Your task to perform on an android device: toggle location history Image 0: 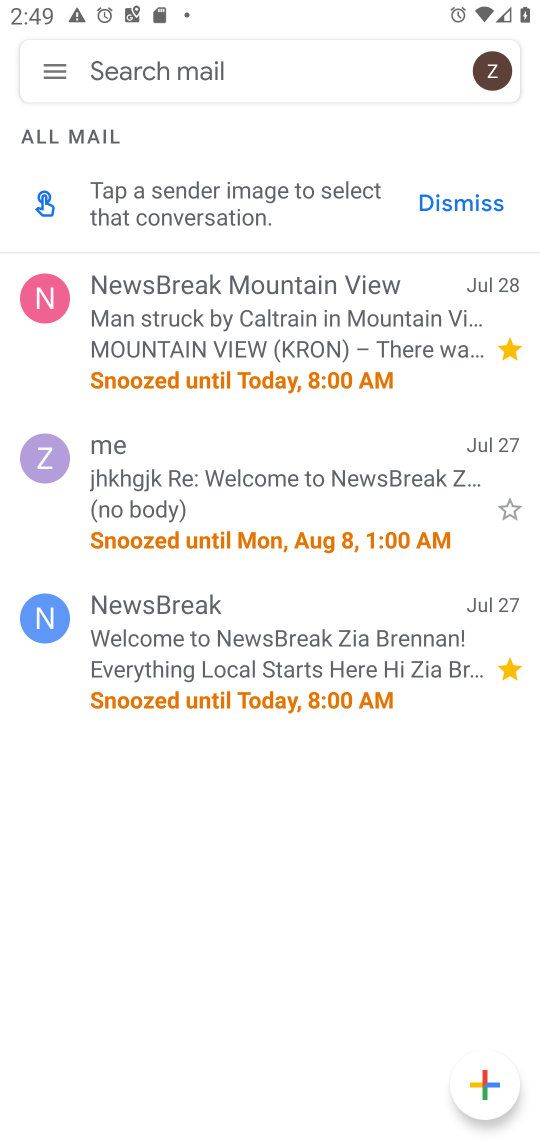
Step 0: press home button
Your task to perform on an android device: toggle location history Image 1: 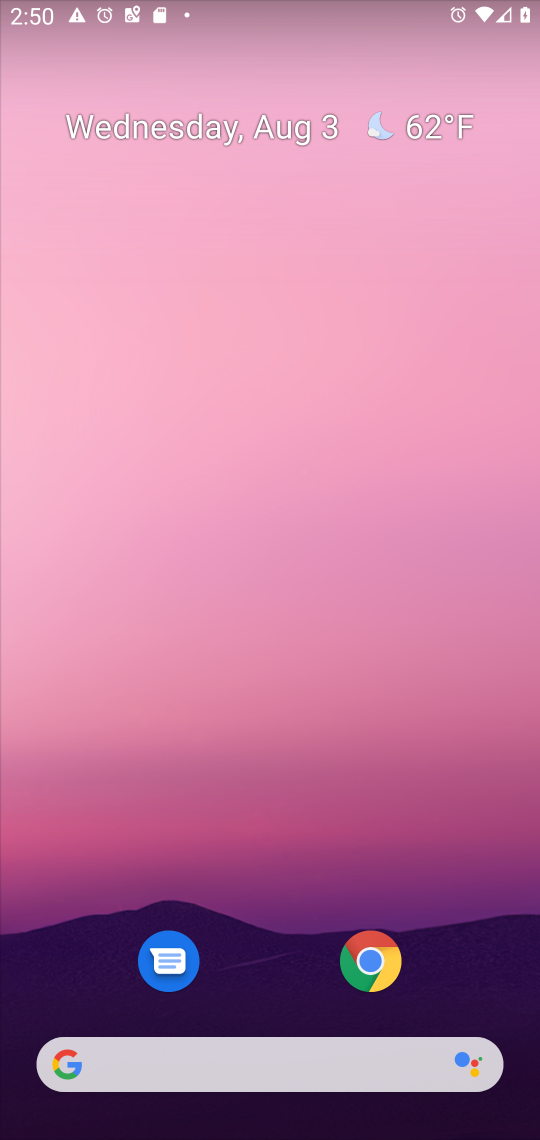
Step 1: drag from (284, 800) to (358, 63)
Your task to perform on an android device: toggle location history Image 2: 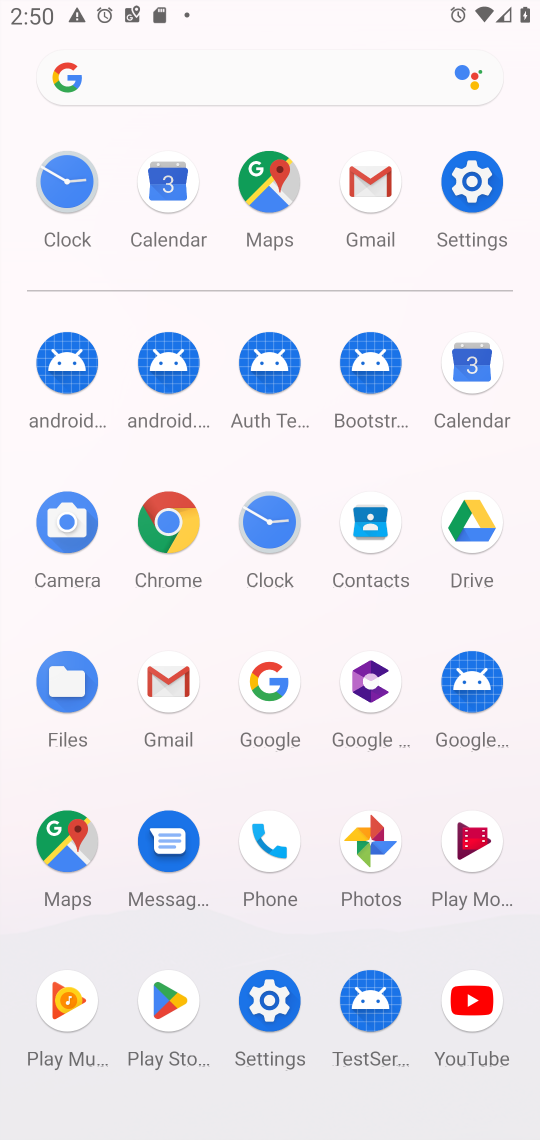
Step 2: click (268, 182)
Your task to perform on an android device: toggle location history Image 3: 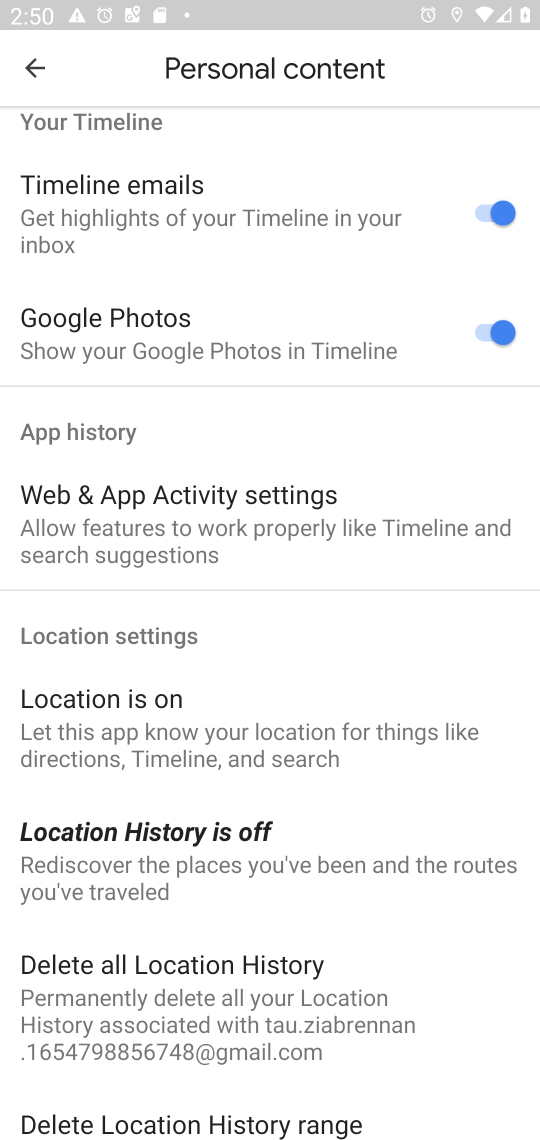
Step 3: click (123, 845)
Your task to perform on an android device: toggle location history Image 4: 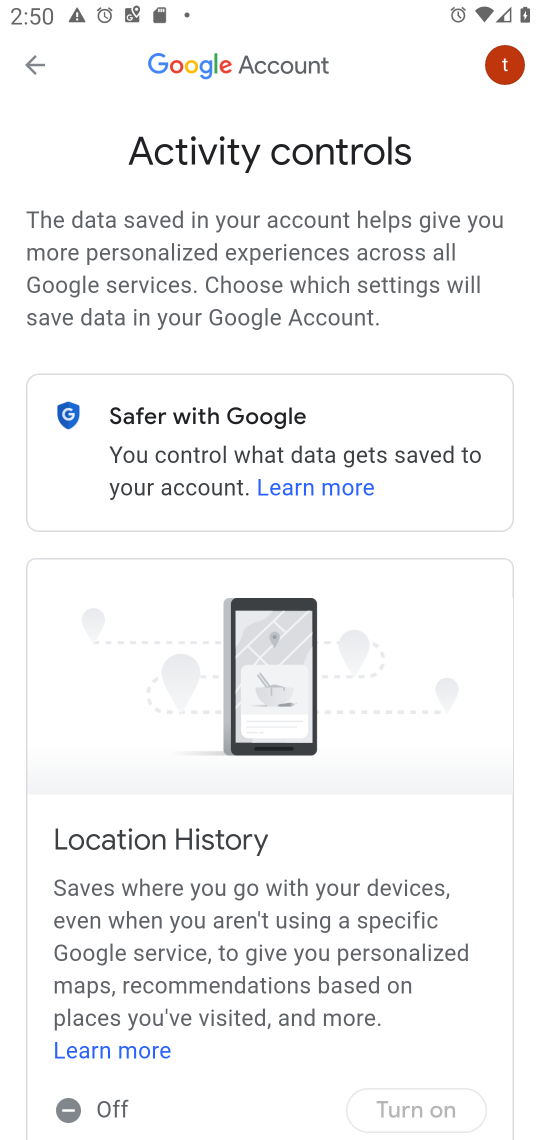
Step 4: drag from (289, 1010) to (294, 776)
Your task to perform on an android device: toggle location history Image 5: 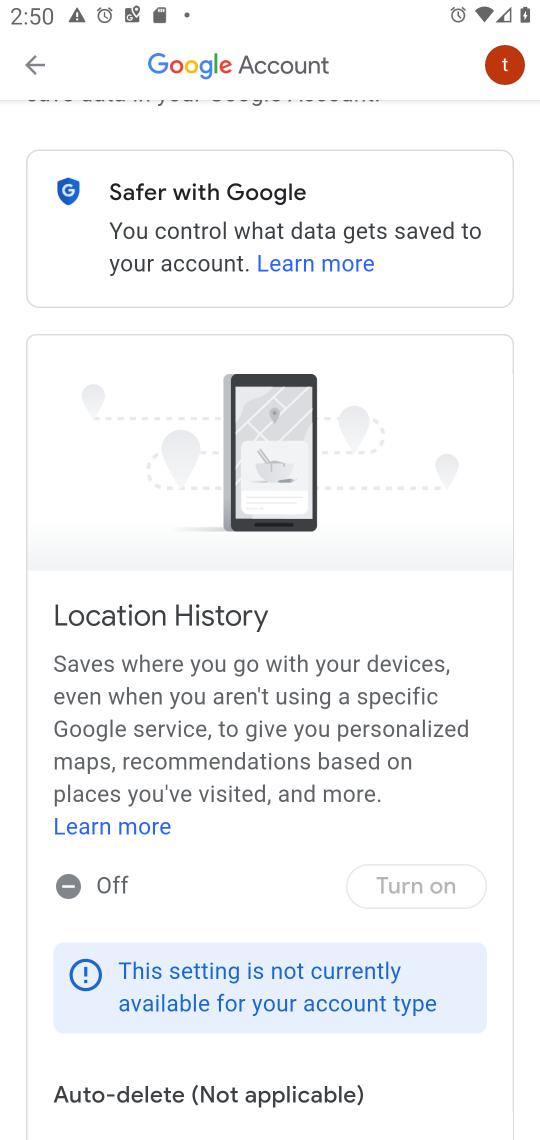
Step 5: click (411, 874)
Your task to perform on an android device: toggle location history Image 6: 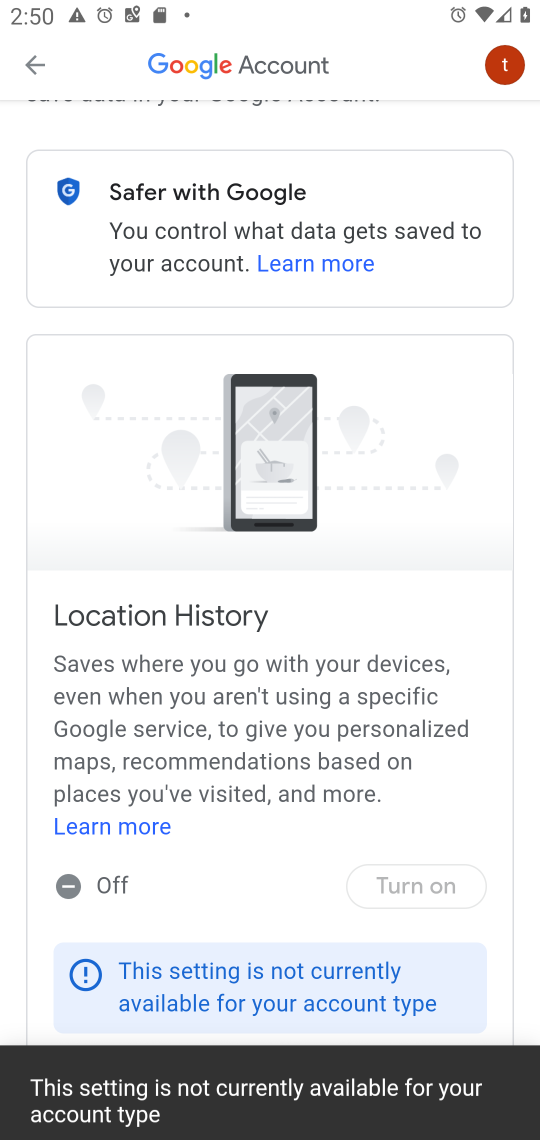
Step 6: click (170, 993)
Your task to perform on an android device: toggle location history Image 7: 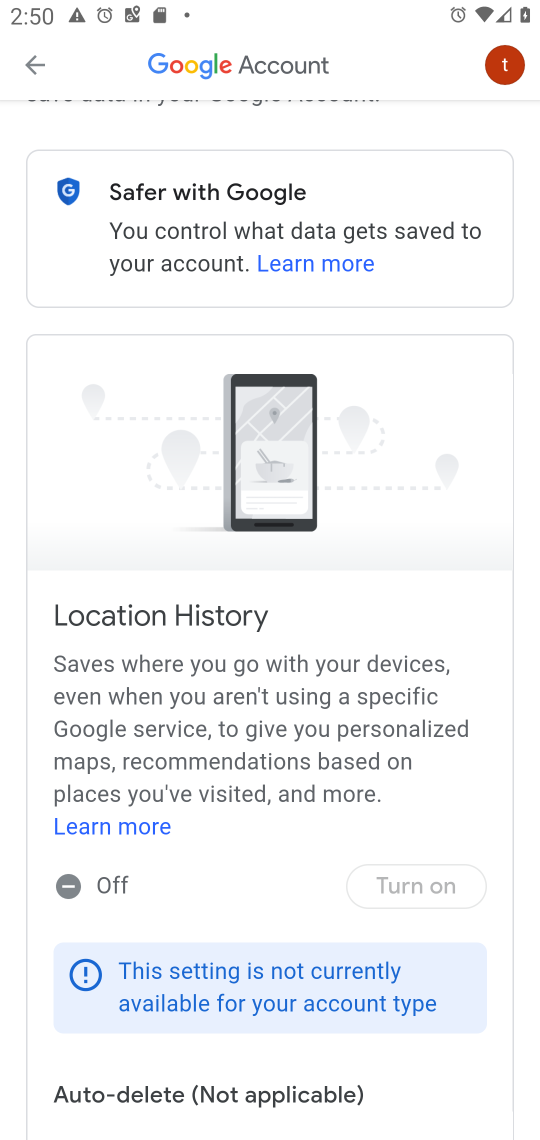
Step 7: click (83, 981)
Your task to perform on an android device: toggle location history Image 8: 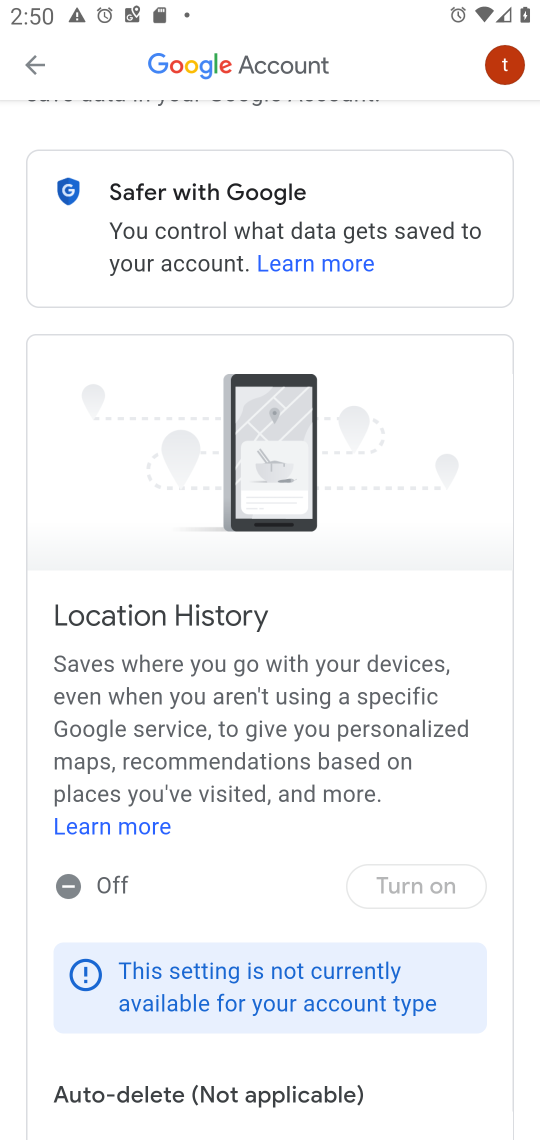
Step 8: click (473, 872)
Your task to perform on an android device: toggle location history Image 9: 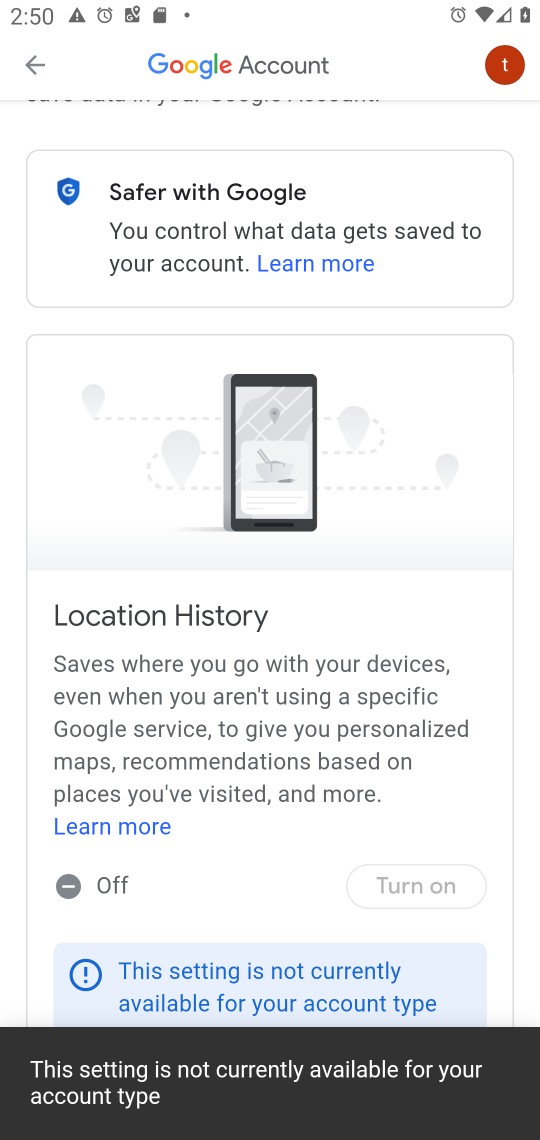
Step 9: task complete